Your task to perform on an android device: turn off notifications in google photos Image 0: 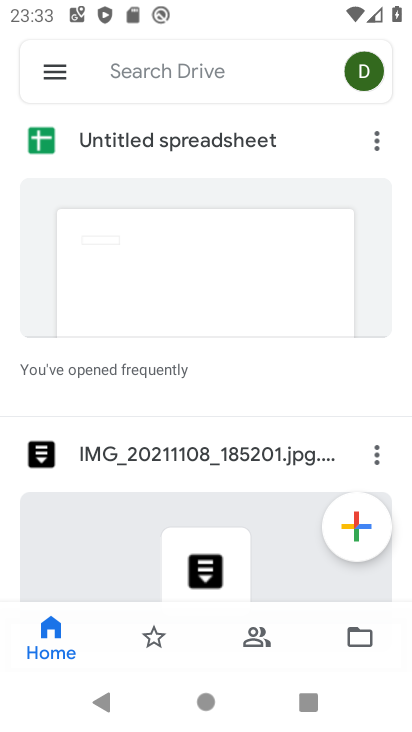
Step 0: press home button
Your task to perform on an android device: turn off notifications in google photos Image 1: 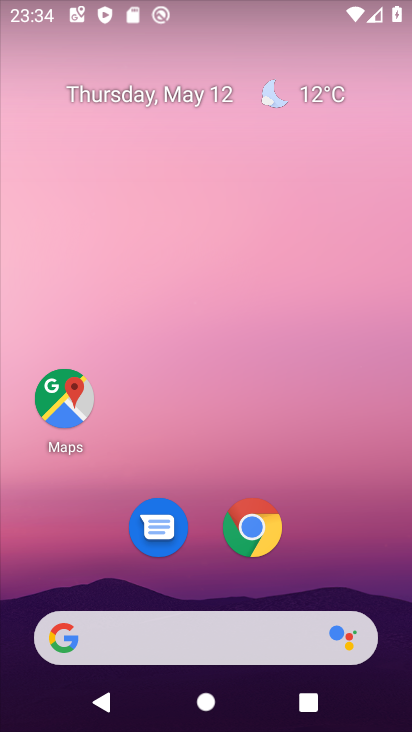
Step 1: drag from (37, 625) to (295, 289)
Your task to perform on an android device: turn off notifications in google photos Image 2: 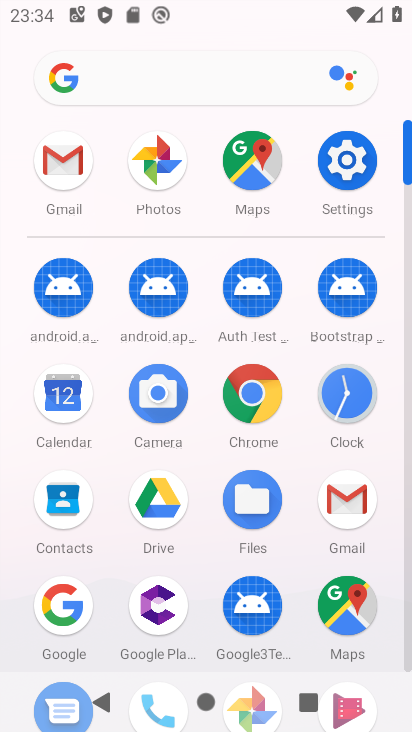
Step 2: click (154, 158)
Your task to perform on an android device: turn off notifications in google photos Image 3: 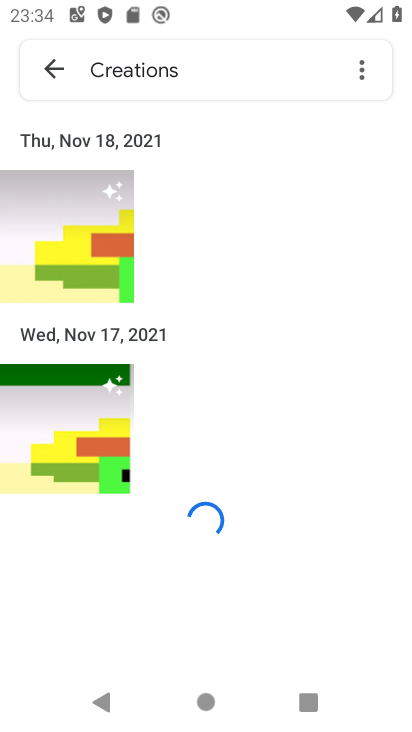
Step 3: press back button
Your task to perform on an android device: turn off notifications in google photos Image 4: 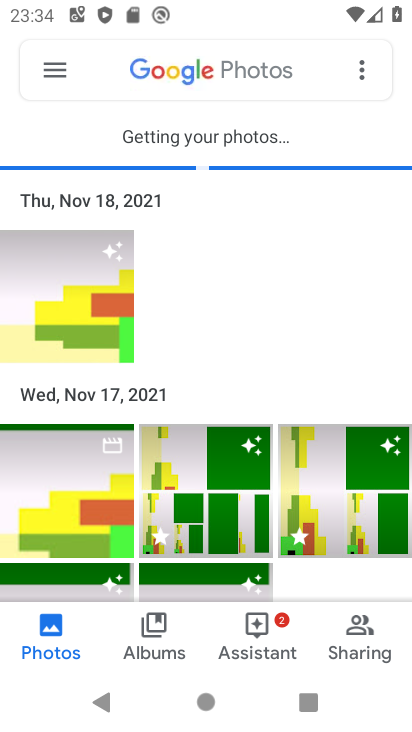
Step 4: click (43, 68)
Your task to perform on an android device: turn off notifications in google photos Image 5: 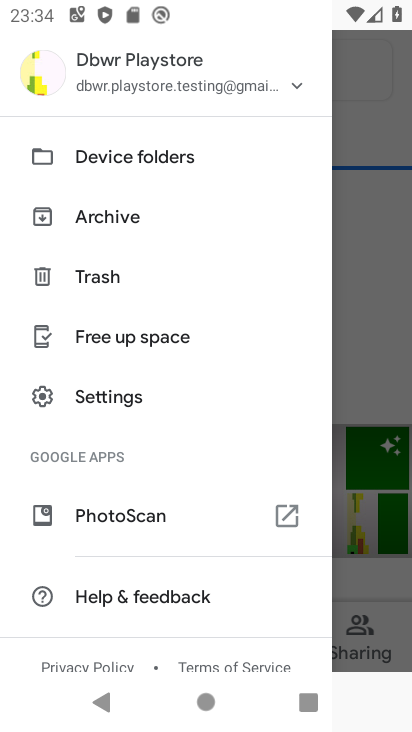
Step 5: click (108, 396)
Your task to perform on an android device: turn off notifications in google photos Image 6: 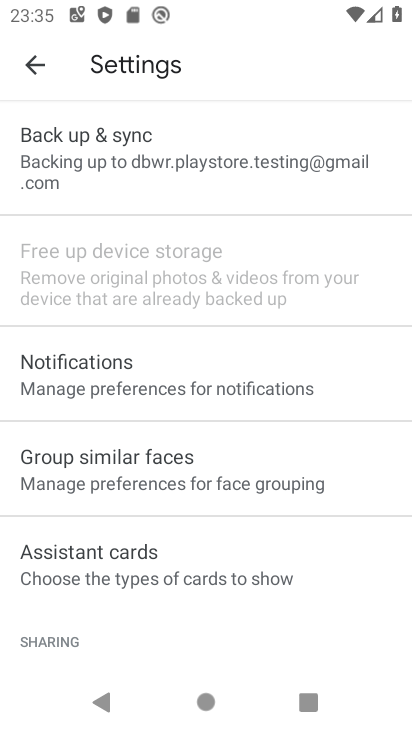
Step 6: click (261, 390)
Your task to perform on an android device: turn off notifications in google photos Image 7: 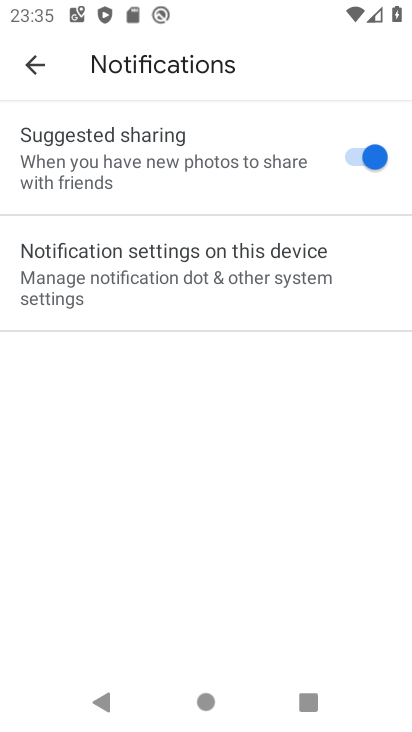
Step 7: task complete